Your task to perform on an android device: turn off airplane mode Image 0: 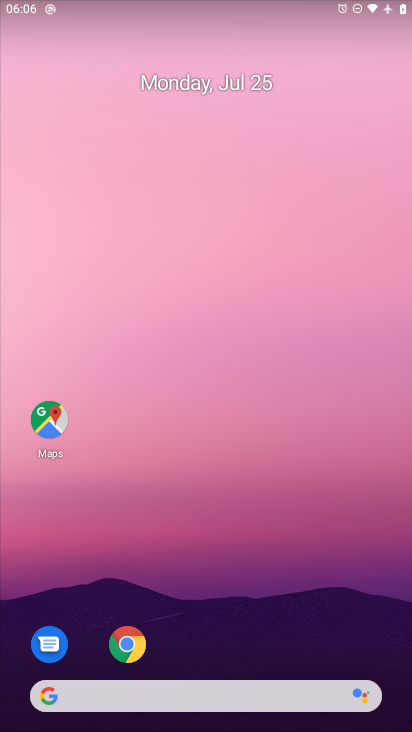
Step 0: press home button
Your task to perform on an android device: turn off airplane mode Image 1: 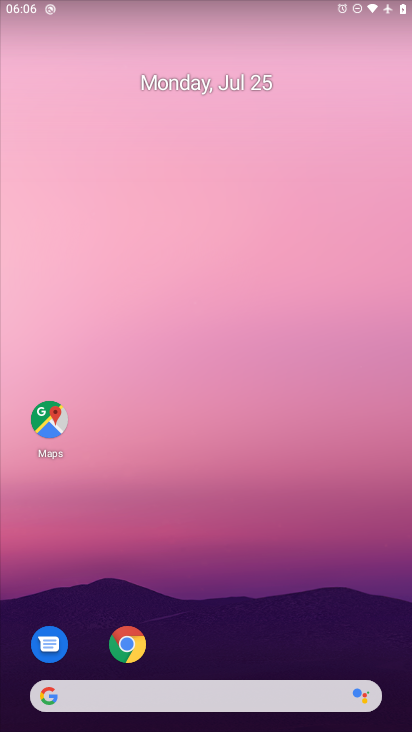
Step 1: drag from (226, 0) to (305, 476)
Your task to perform on an android device: turn off airplane mode Image 2: 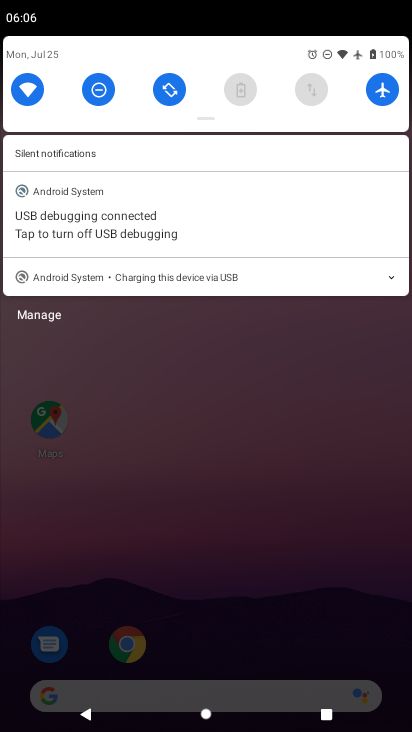
Step 2: click (386, 91)
Your task to perform on an android device: turn off airplane mode Image 3: 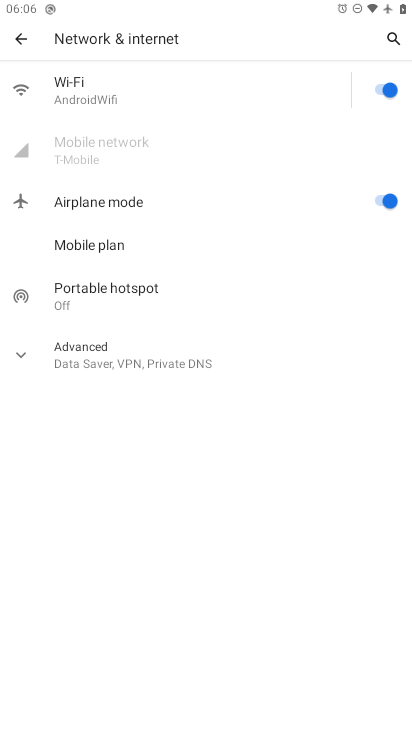
Step 3: click (388, 197)
Your task to perform on an android device: turn off airplane mode Image 4: 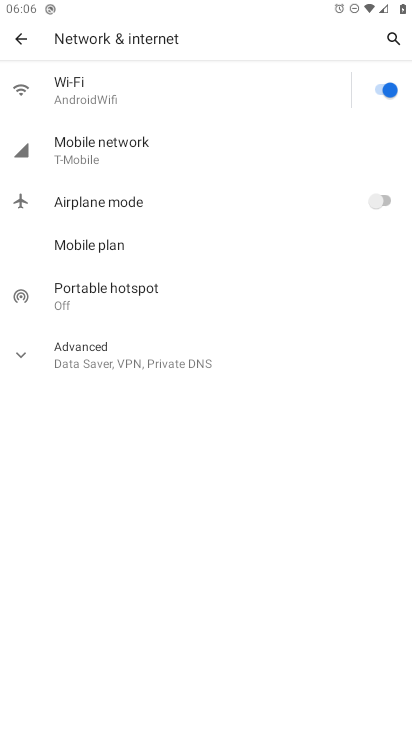
Step 4: task complete